Your task to perform on an android device: Open calendar and show me the second week of next month Image 0: 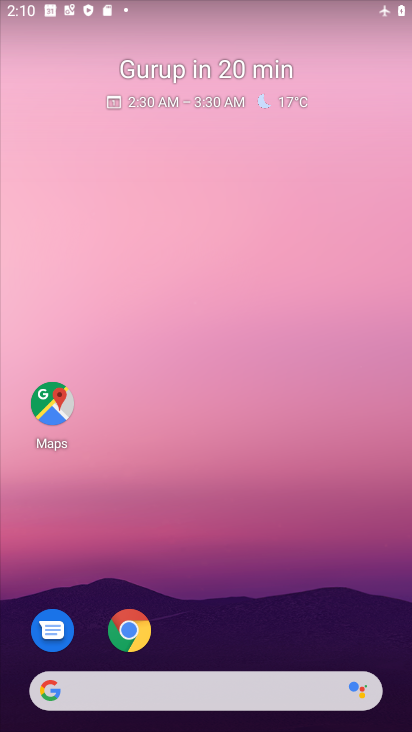
Step 0: drag from (293, 552) to (301, 0)
Your task to perform on an android device: Open calendar and show me the second week of next month Image 1: 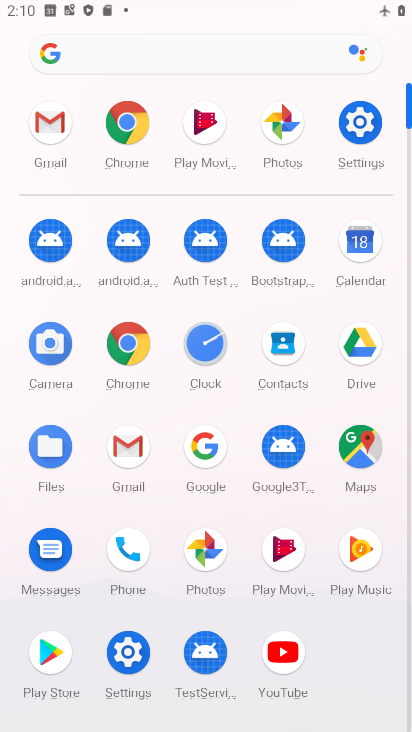
Step 1: click (366, 248)
Your task to perform on an android device: Open calendar and show me the second week of next month Image 2: 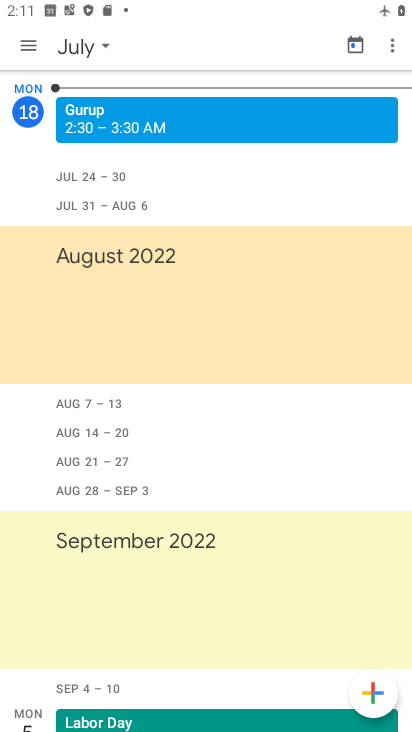
Step 2: click (26, 49)
Your task to perform on an android device: Open calendar and show me the second week of next month Image 3: 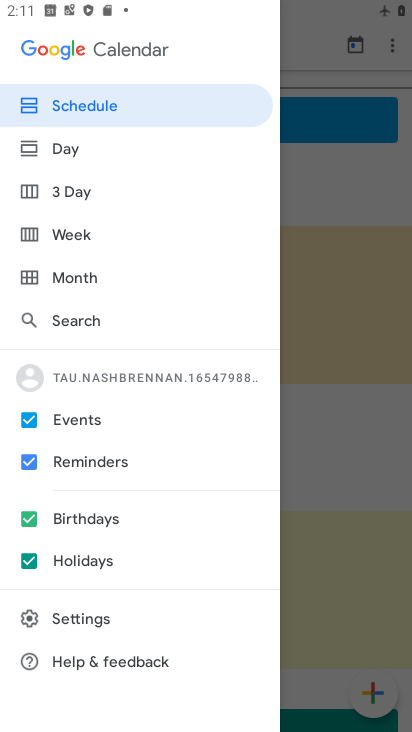
Step 3: click (49, 233)
Your task to perform on an android device: Open calendar and show me the second week of next month Image 4: 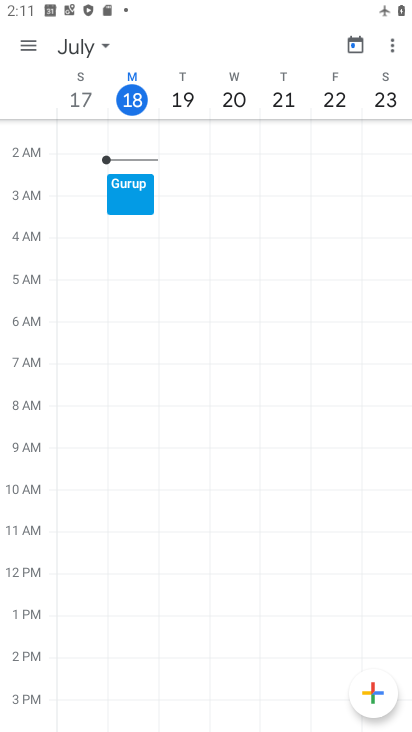
Step 4: task complete